Your task to perform on an android device: turn off notifications in google photos Image 0: 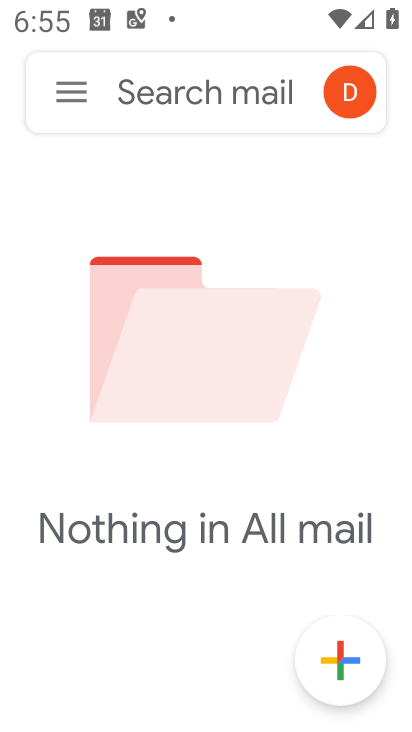
Step 0: press home button
Your task to perform on an android device: turn off notifications in google photos Image 1: 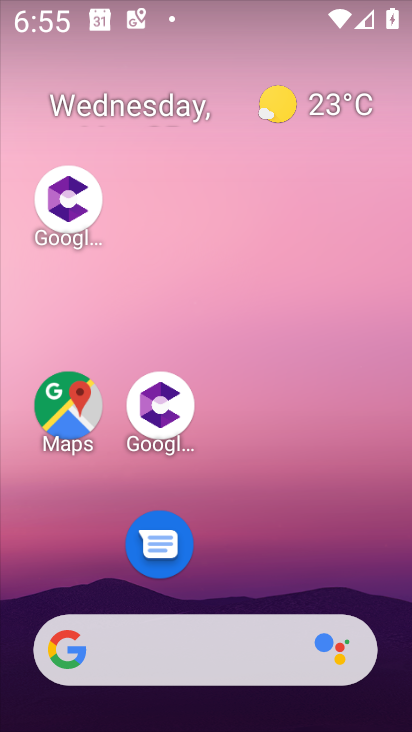
Step 1: drag from (280, 504) to (160, 8)
Your task to perform on an android device: turn off notifications in google photos Image 2: 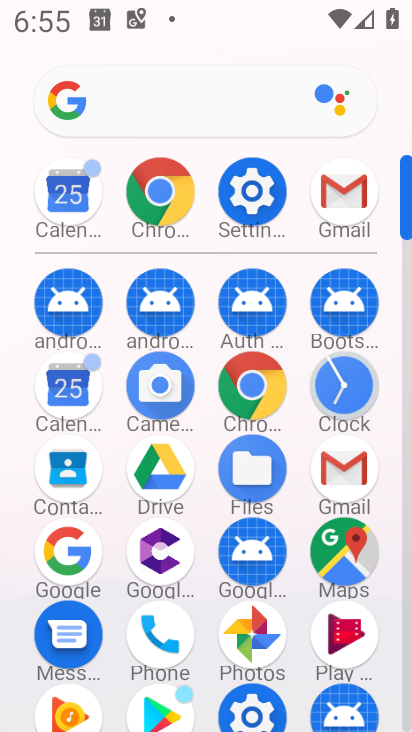
Step 2: click (262, 621)
Your task to perform on an android device: turn off notifications in google photos Image 3: 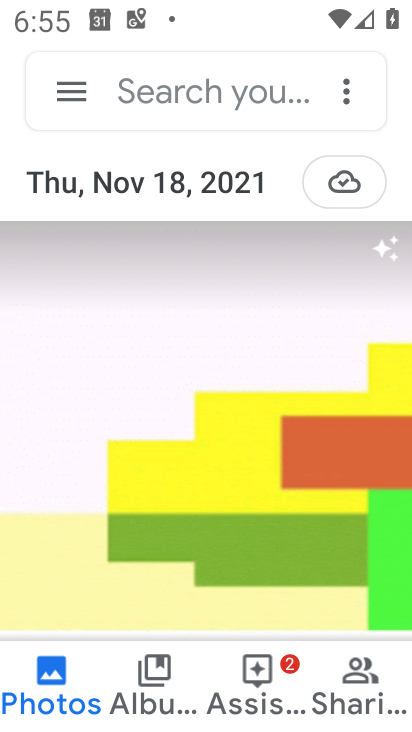
Step 3: click (60, 82)
Your task to perform on an android device: turn off notifications in google photos Image 4: 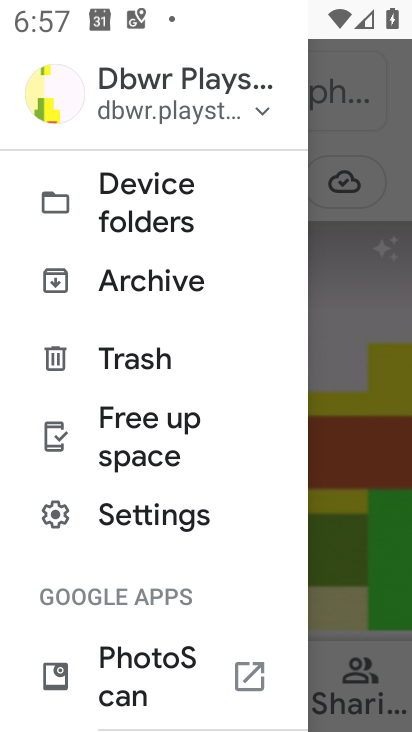
Step 4: click (144, 521)
Your task to perform on an android device: turn off notifications in google photos Image 5: 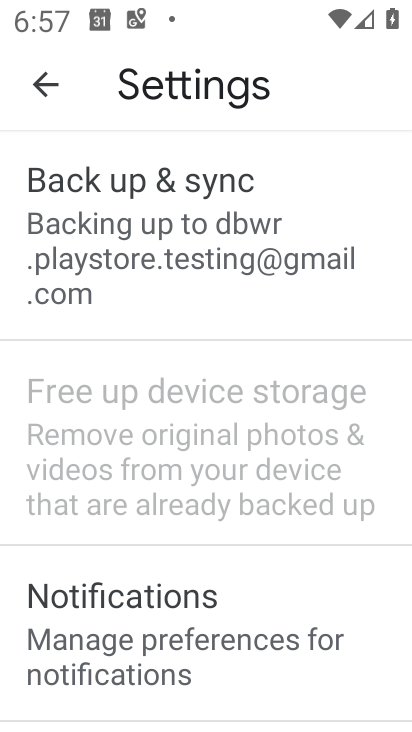
Step 5: click (163, 578)
Your task to perform on an android device: turn off notifications in google photos Image 6: 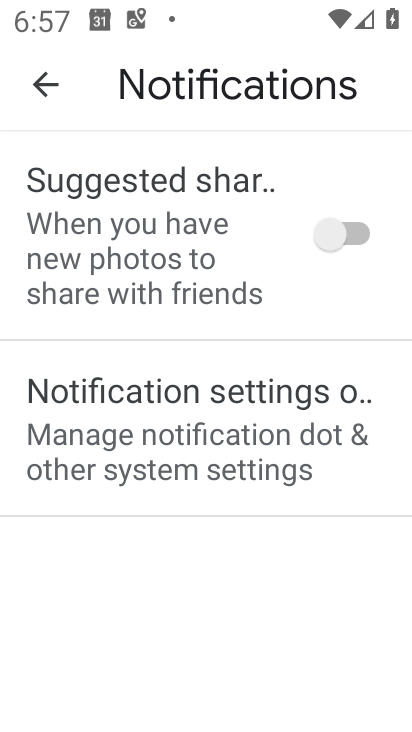
Step 6: click (192, 396)
Your task to perform on an android device: turn off notifications in google photos Image 7: 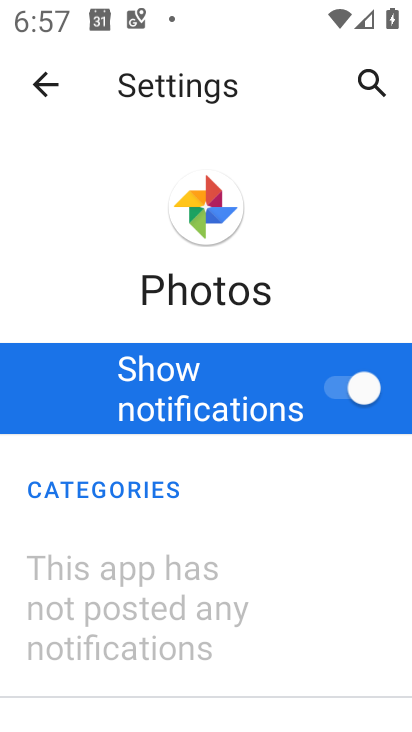
Step 7: click (349, 384)
Your task to perform on an android device: turn off notifications in google photos Image 8: 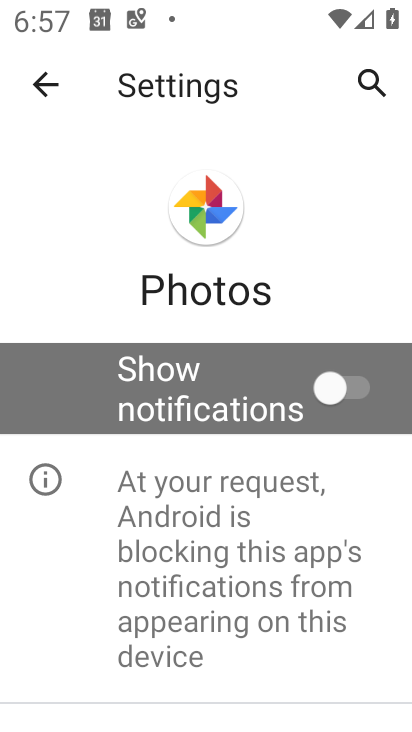
Step 8: task complete